Your task to perform on an android device: turn pop-ups off in chrome Image 0: 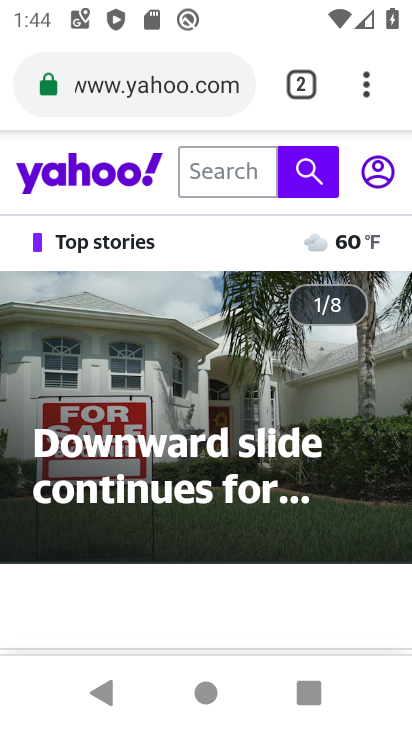
Step 0: press home button
Your task to perform on an android device: turn pop-ups off in chrome Image 1: 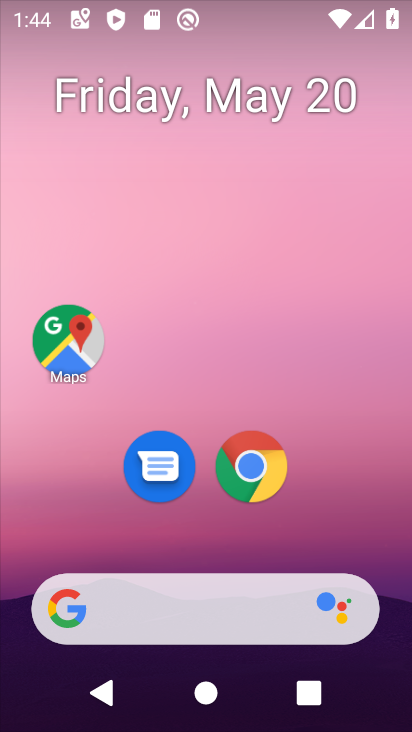
Step 1: drag from (261, 565) to (253, 28)
Your task to perform on an android device: turn pop-ups off in chrome Image 2: 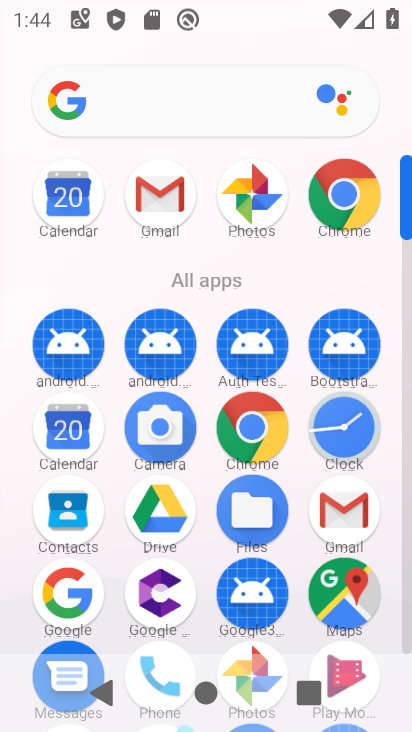
Step 2: click (260, 412)
Your task to perform on an android device: turn pop-ups off in chrome Image 3: 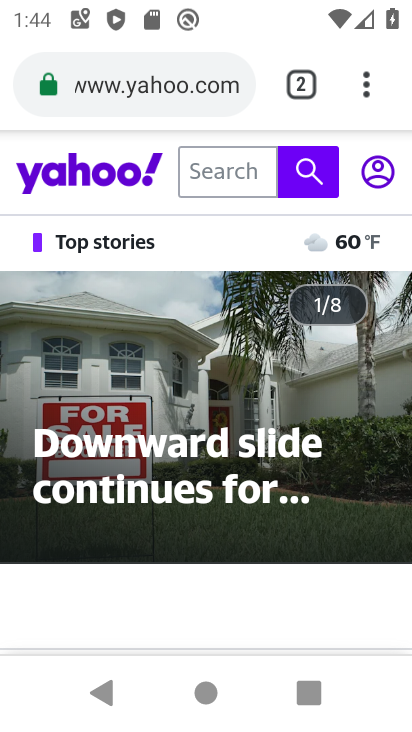
Step 3: click (356, 96)
Your task to perform on an android device: turn pop-ups off in chrome Image 4: 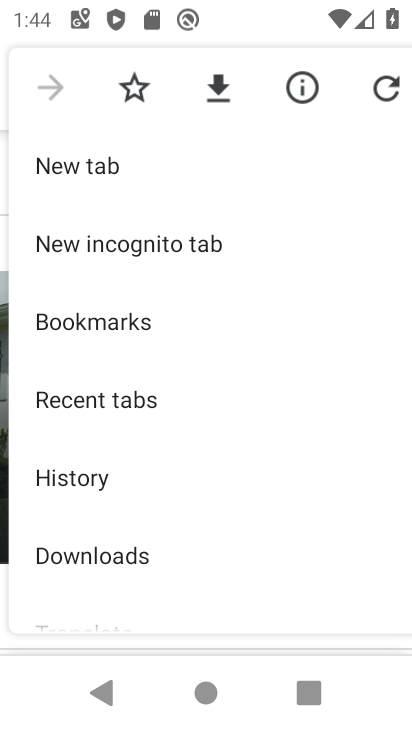
Step 4: drag from (186, 537) to (189, 140)
Your task to perform on an android device: turn pop-ups off in chrome Image 5: 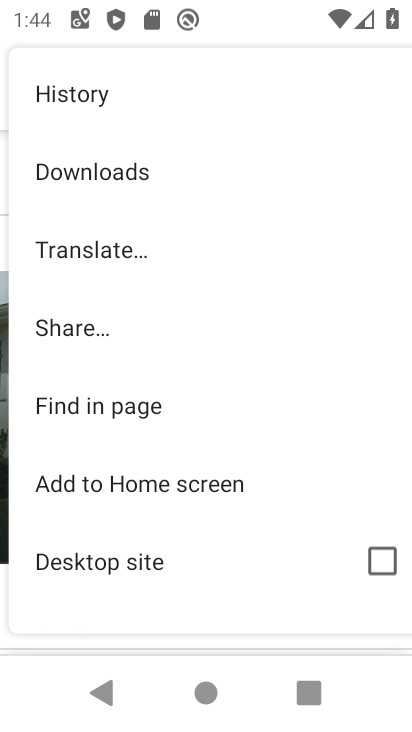
Step 5: drag from (92, 602) to (82, 133)
Your task to perform on an android device: turn pop-ups off in chrome Image 6: 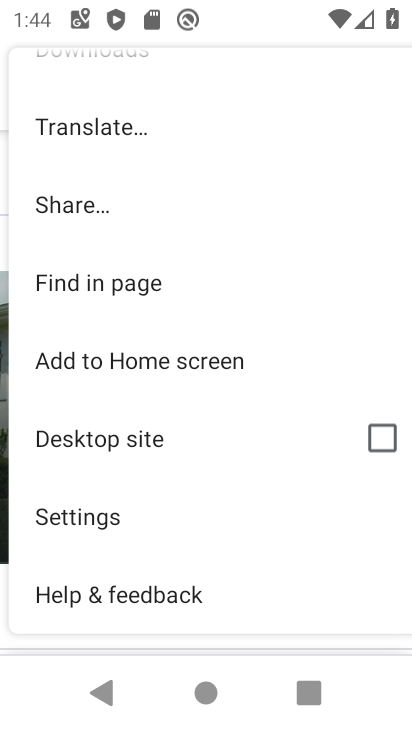
Step 6: click (107, 509)
Your task to perform on an android device: turn pop-ups off in chrome Image 7: 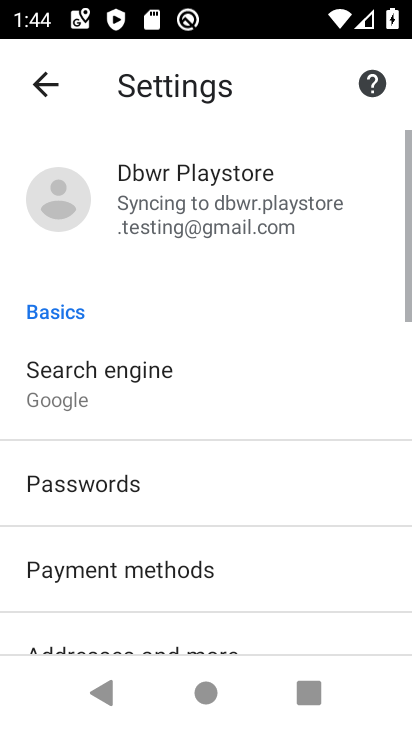
Step 7: drag from (107, 509) to (61, 115)
Your task to perform on an android device: turn pop-ups off in chrome Image 8: 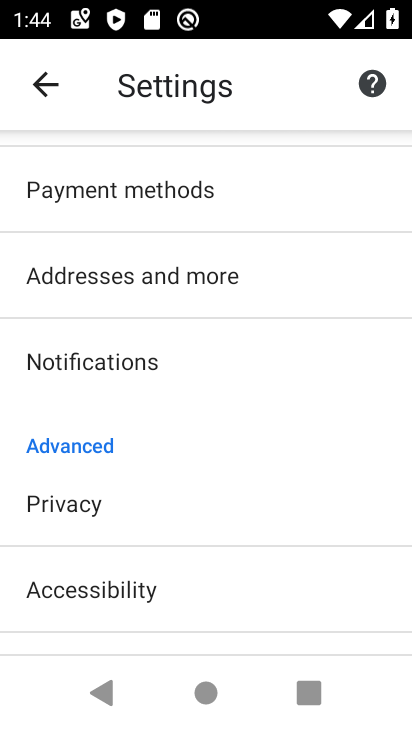
Step 8: drag from (122, 491) to (69, 136)
Your task to perform on an android device: turn pop-ups off in chrome Image 9: 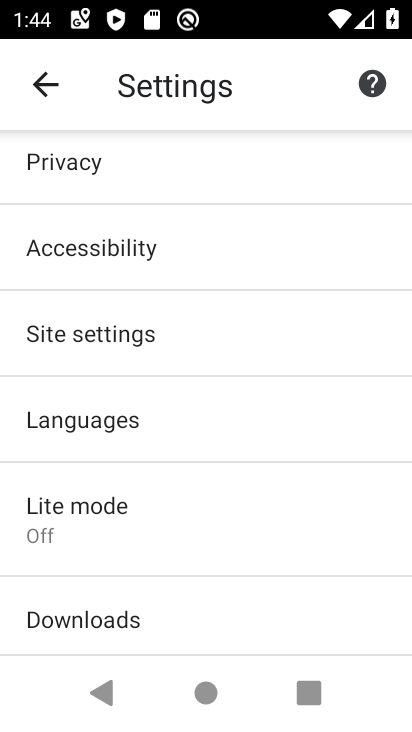
Step 9: click (68, 336)
Your task to perform on an android device: turn pop-ups off in chrome Image 10: 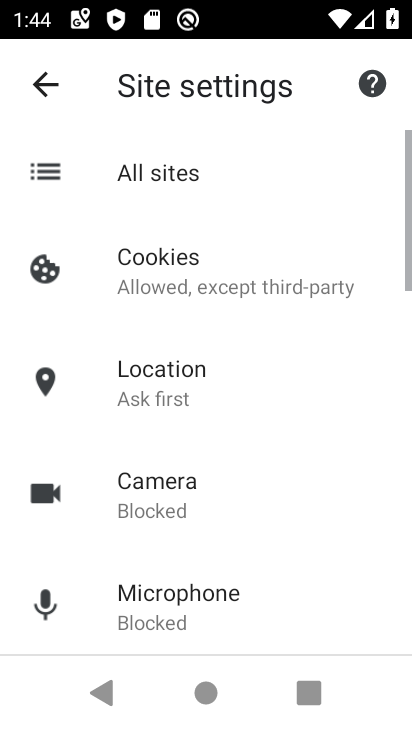
Step 10: drag from (151, 526) to (149, 42)
Your task to perform on an android device: turn pop-ups off in chrome Image 11: 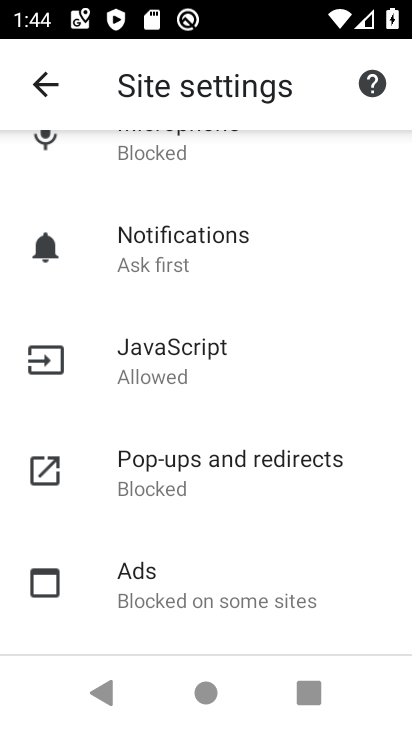
Step 11: click (196, 459)
Your task to perform on an android device: turn pop-ups off in chrome Image 12: 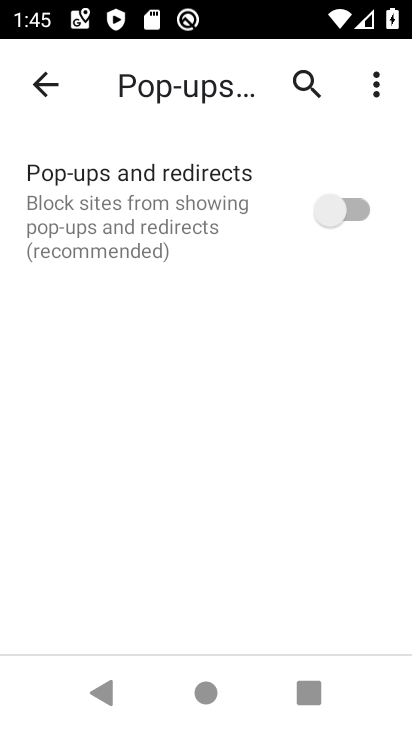
Step 12: task complete